Your task to perform on an android device: toggle wifi Image 0: 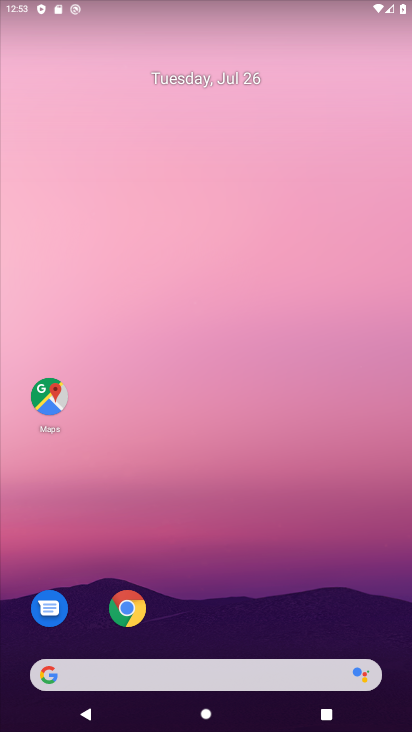
Step 0: drag from (263, 630) to (210, 173)
Your task to perform on an android device: toggle wifi Image 1: 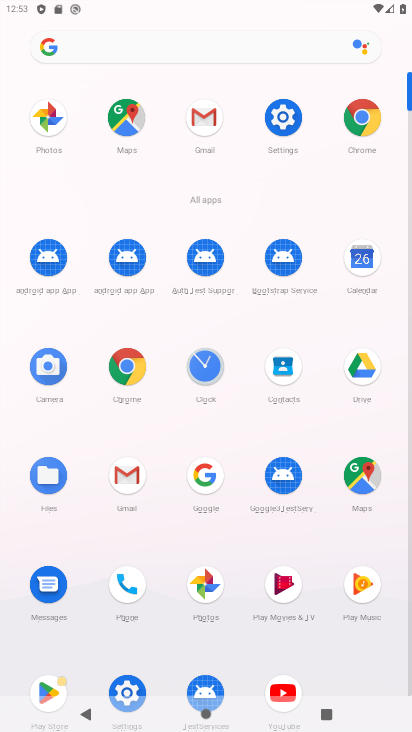
Step 1: click (292, 115)
Your task to perform on an android device: toggle wifi Image 2: 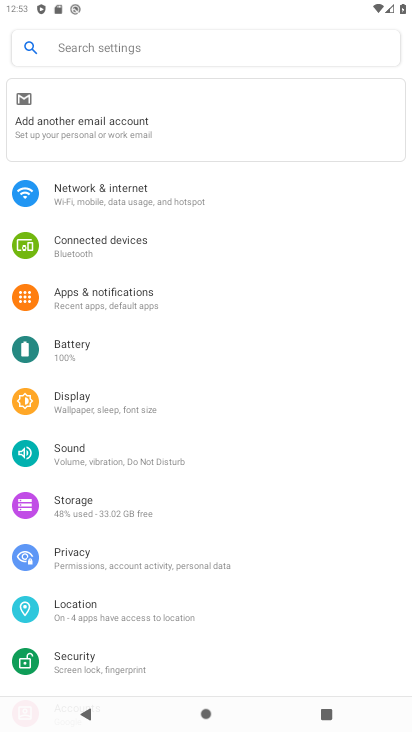
Step 2: click (296, 198)
Your task to perform on an android device: toggle wifi Image 3: 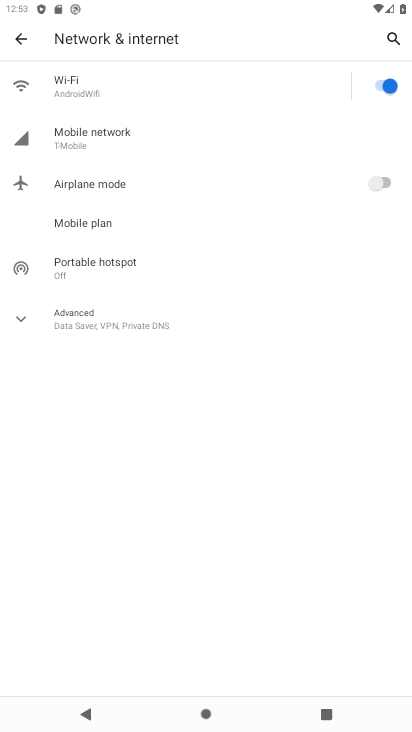
Step 3: click (392, 91)
Your task to perform on an android device: toggle wifi Image 4: 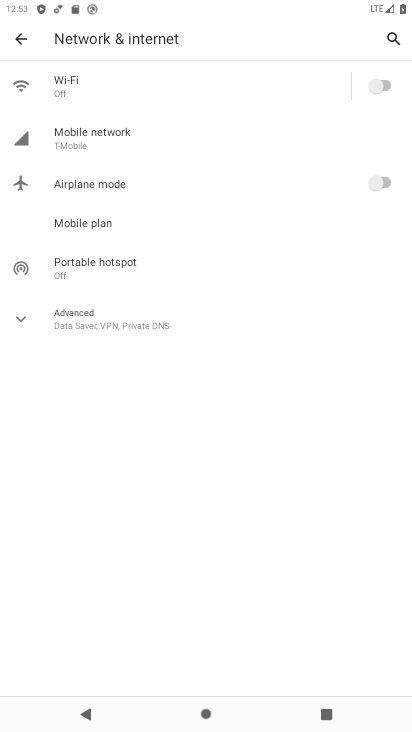
Step 4: task complete